Your task to perform on an android device: Go to internet settings Image 0: 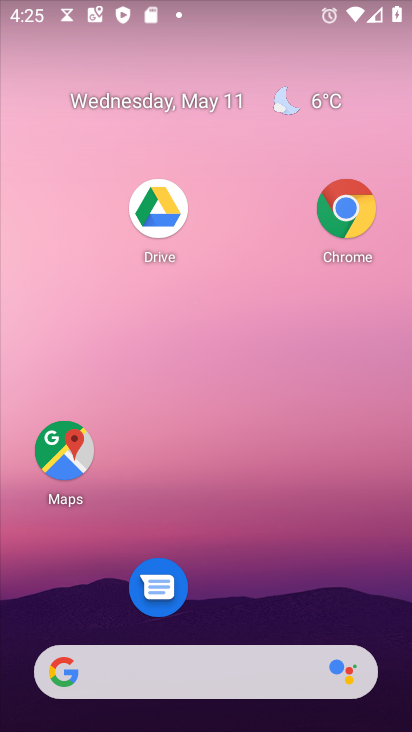
Step 0: drag from (258, 530) to (271, 205)
Your task to perform on an android device: Go to internet settings Image 1: 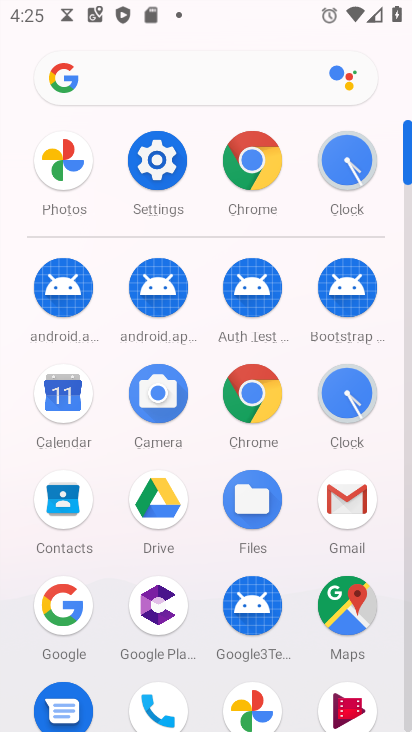
Step 1: click (164, 167)
Your task to perform on an android device: Go to internet settings Image 2: 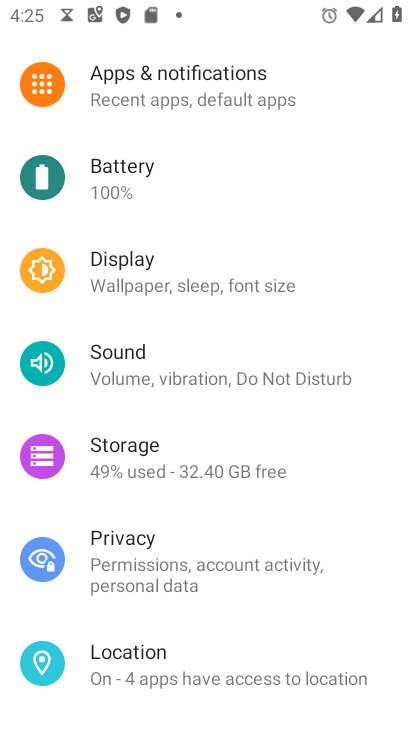
Step 2: drag from (208, 131) to (195, 537)
Your task to perform on an android device: Go to internet settings Image 3: 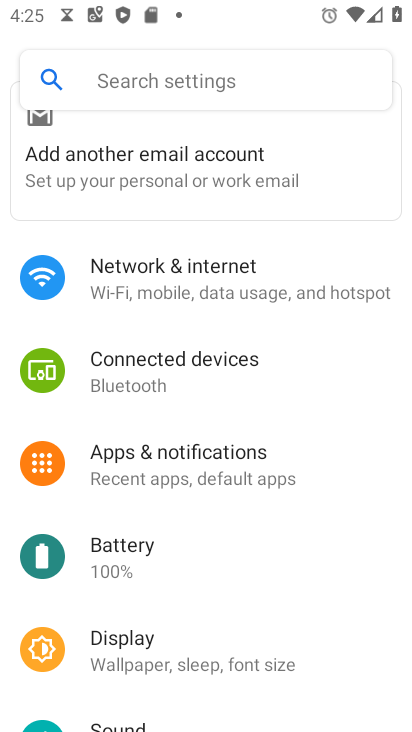
Step 3: click (173, 281)
Your task to perform on an android device: Go to internet settings Image 4: 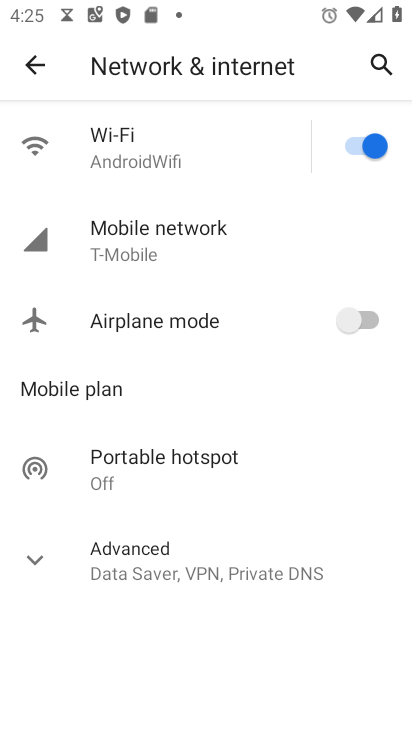
Step 4: task complete